Your task to perform on an android device: open app "ZOOM Cloud Meetings" Image 0: 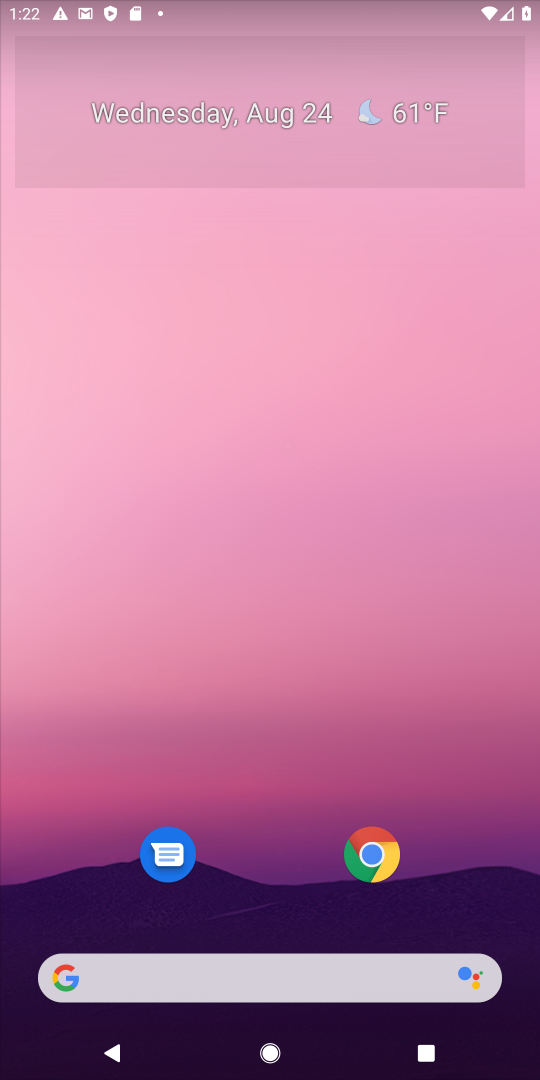
Step 0: press home button
Your task to perform on an android device: open app "ZOOM Cloud Meetings" Image 1: 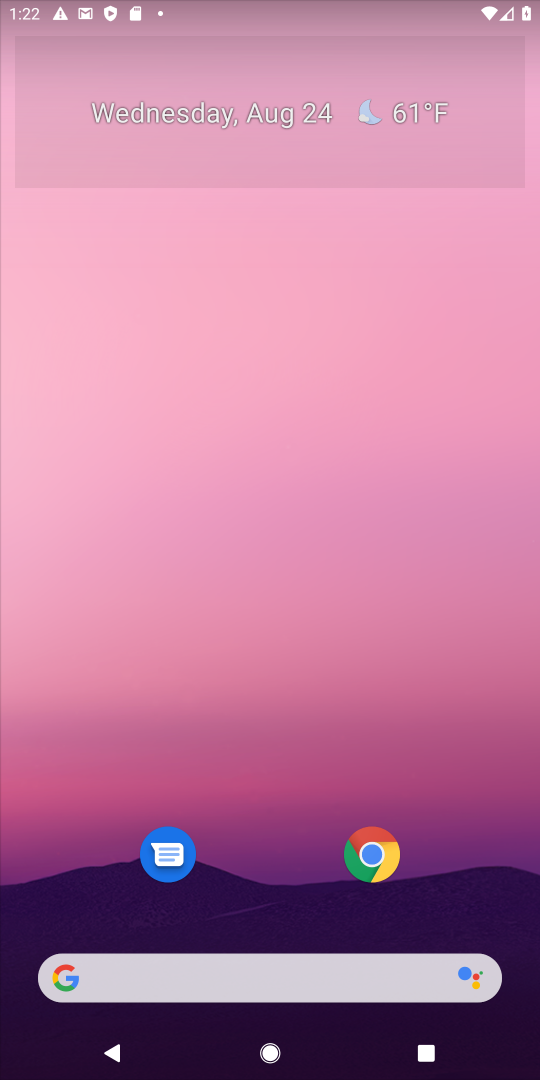
Step 1: drag from (479, 802) to (455, 136)
Your task to perform on an android device: open app "ZOOM Cloud Meetings" Image 2: 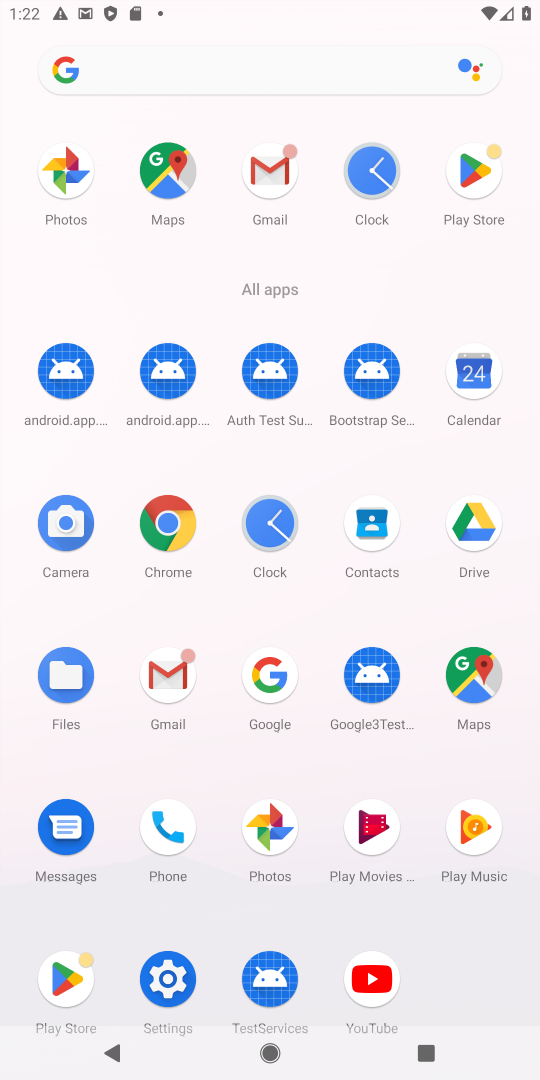
Step 2: click (482, 161)
Your task to perform on an android device: open app "ZOOM Cloud Meetings" Image 3: 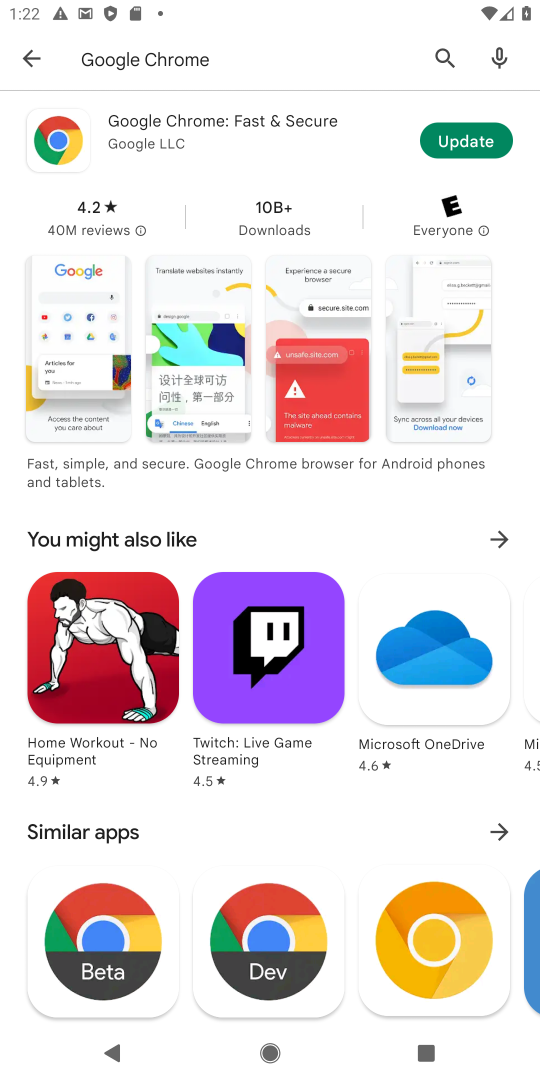
Step 3: press back button
Your task to perform on an android device: open app "ZOOM Cloud Meetings" Image 4: 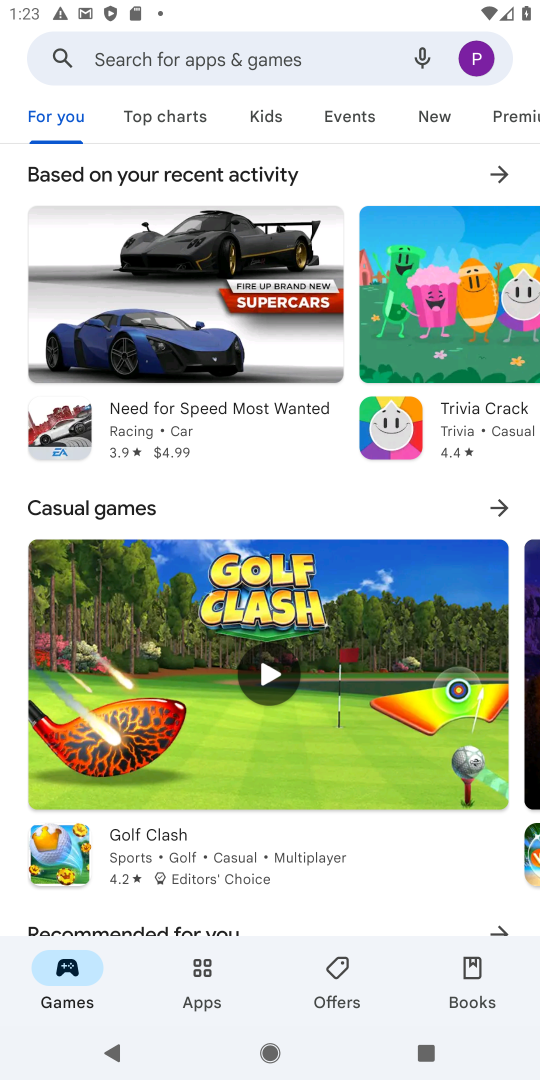
Step 4: click (243, 51)
Your task to perform on an android device: open app "ZOOM Cloud Meetings" Image 5: 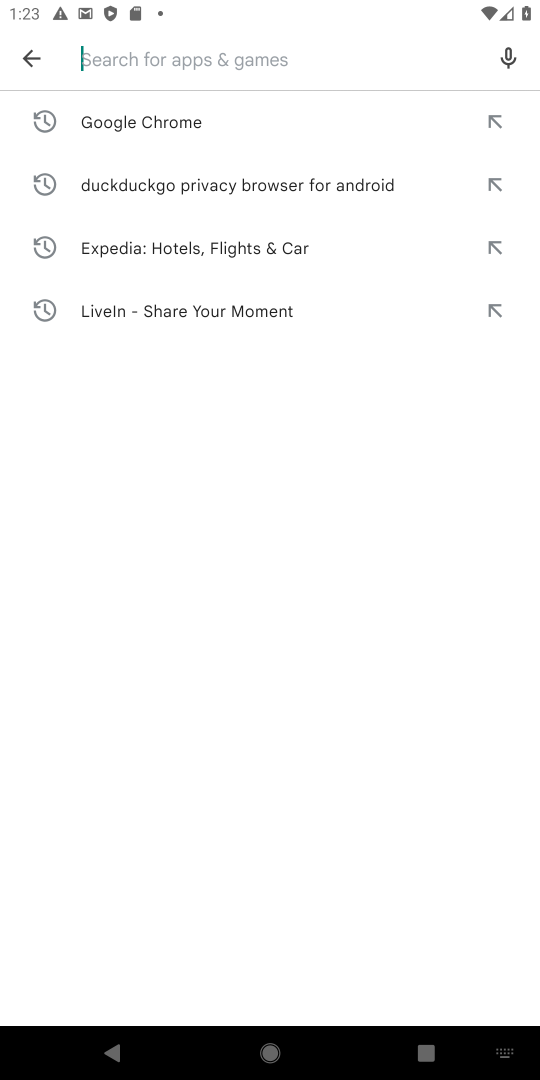
Step 5: type "ZOOM Cloud Meetings"
Your task to perform on an android device: open app "ZOOM Cloud Meetings" Image 6: 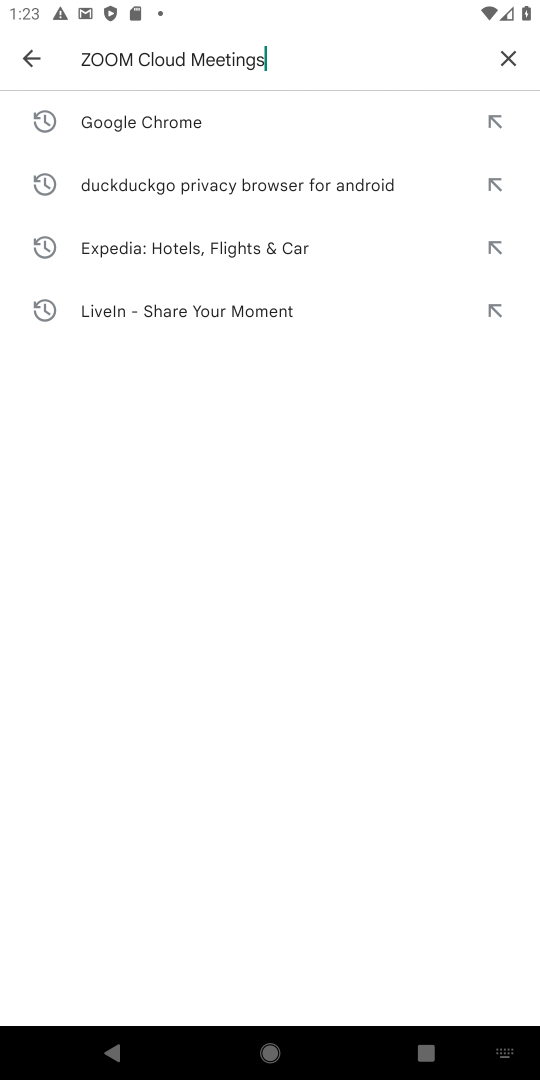
Step 6: press enter
Your task to perform on an android device: open app "ZOOM Cloud Meetings" Image 7: 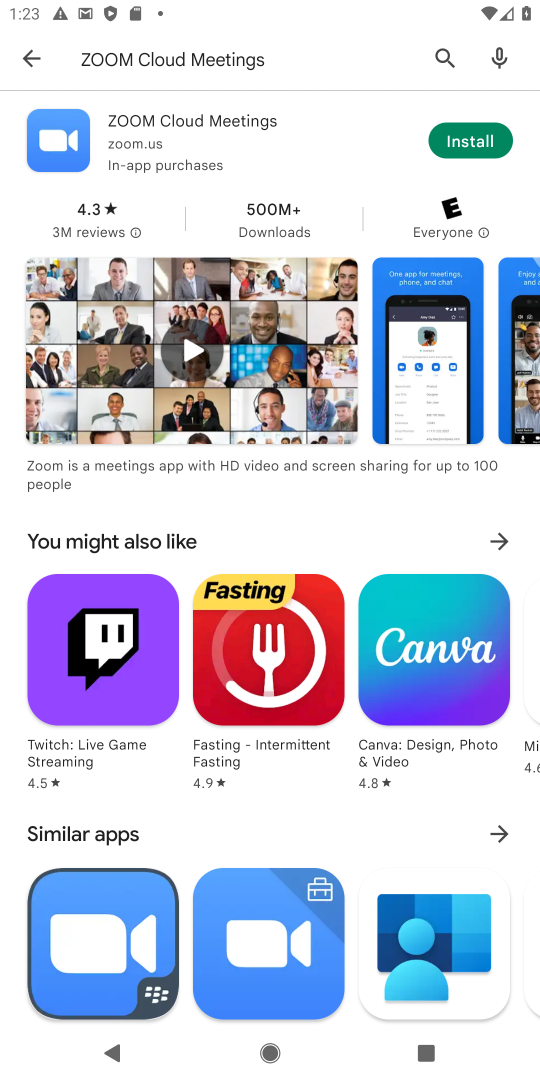
Step 7: task complete